Your task to perform on an android device: Go to Google maps Image 0: 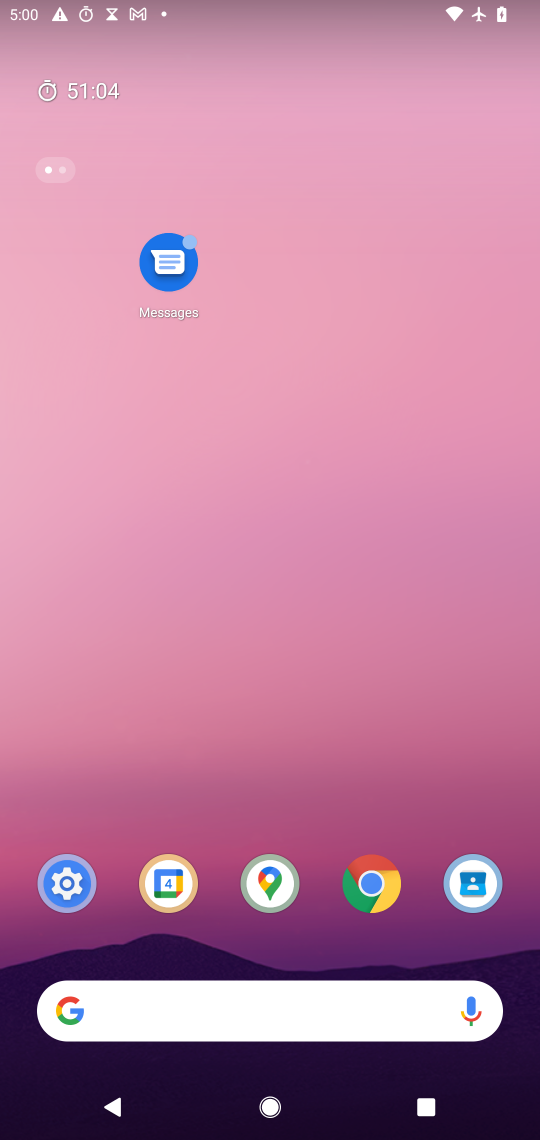
Step 0: drag from (327, 964) to (327, 653)
Your task to perform on an android device: Go to Google maps Image 1: 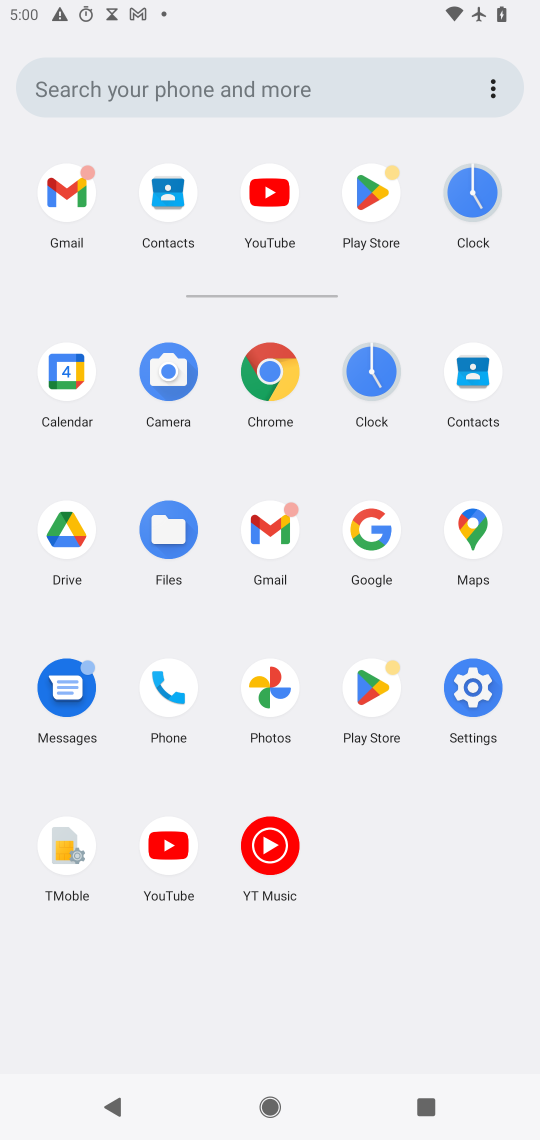
Step 1: click (478, 529)
Your task to perform on an android device: Go to Google maps Image 2: 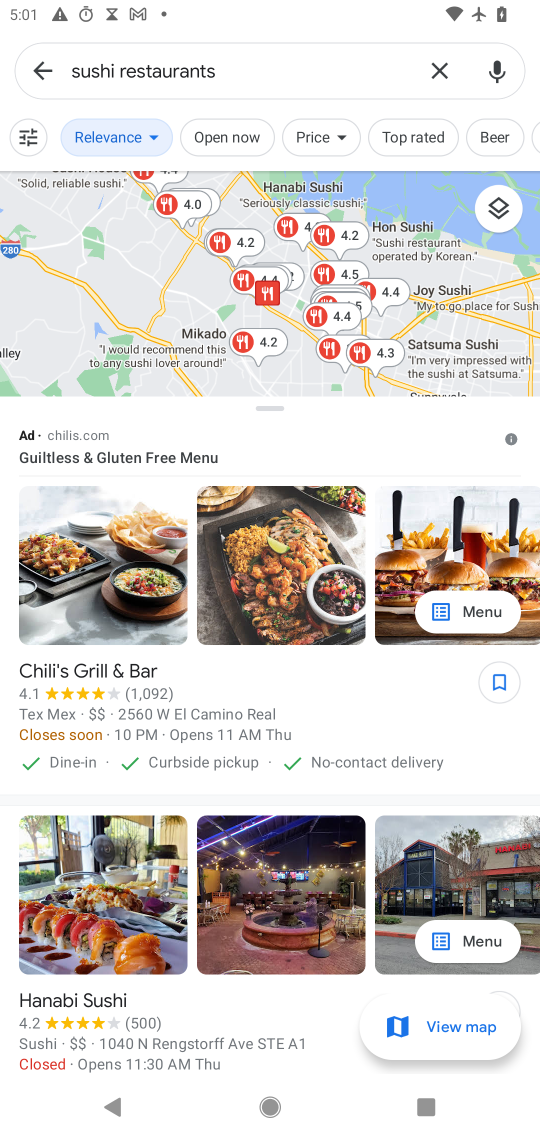
Step 2: task complete